Your task to perform on an android device: add a contact in the contacts app Image 0: 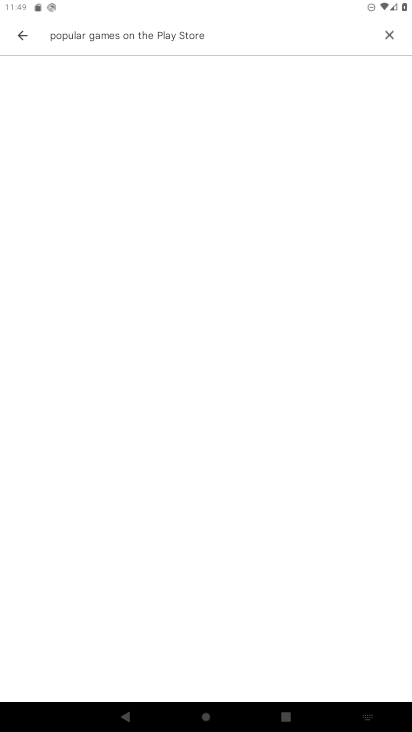
Step 0: press home button
Your task to perform on an android device: add a contact in the contacts app Image 1: 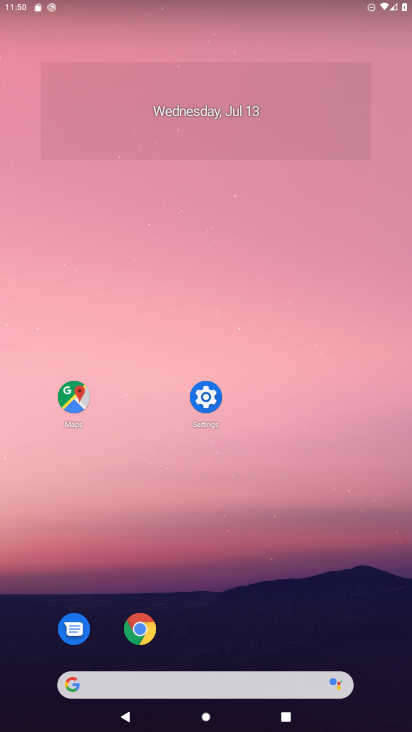
Step 1: drag from (389, 671) to (316, 187)
Your task to perform on an android device: add a contact in the contacts app Image 2: 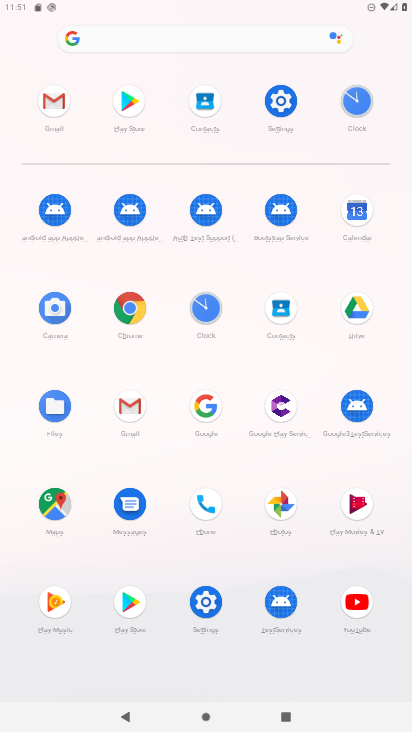
Step 2: click (285, 313)
Your task to perform on an android device: add a contact in the contacts app Image 3: 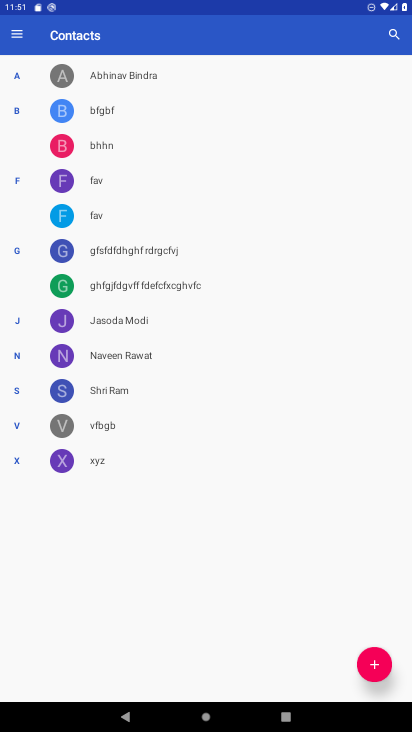
Step 3: click (367, 656)
Your task to perform on an android device: add a contact in the contacts app Image 4: 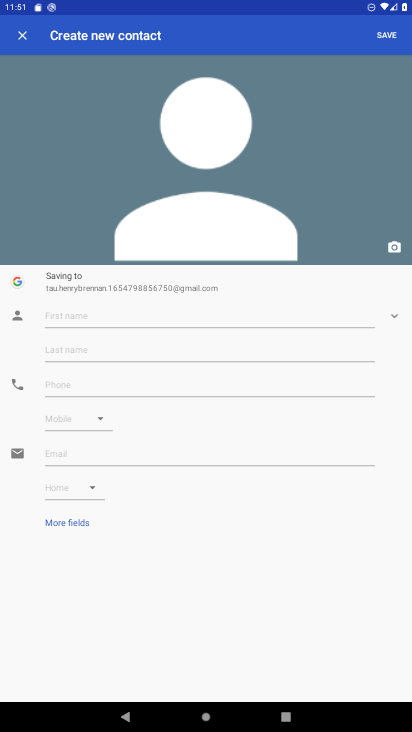
Step 4: click (145, 317)
Your task to perform on an android device: add a contact in the contacts app Image 5: 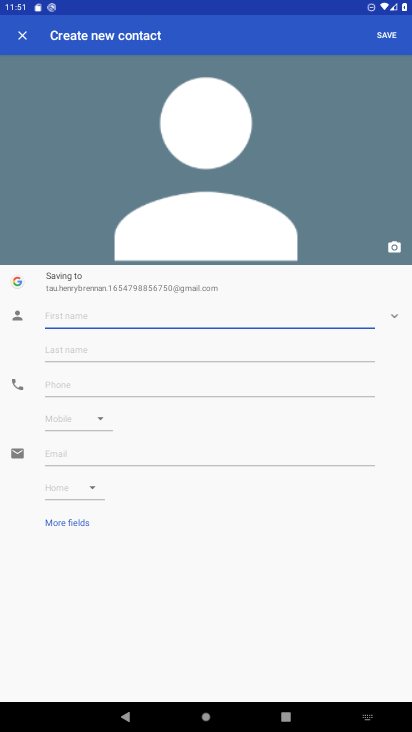
Step 5: type "dfdgfjfjfjgjjhv"
Your task to perform on an android device: add a contact in the contacts app Image 6: 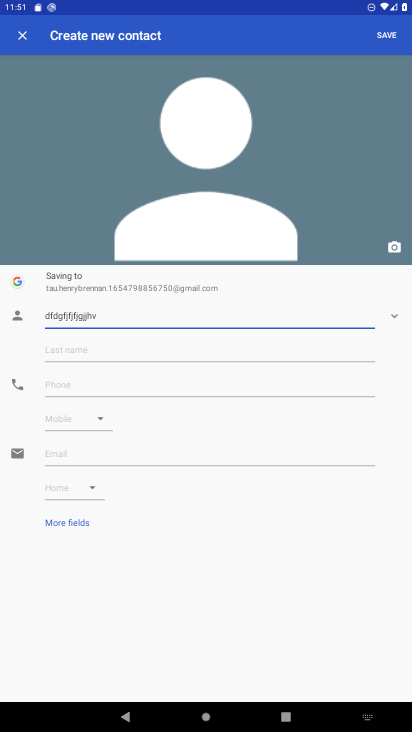
Step 6: click (121, 355)
Your task to perform on an android device: add a contact in the contacts app Image 7: 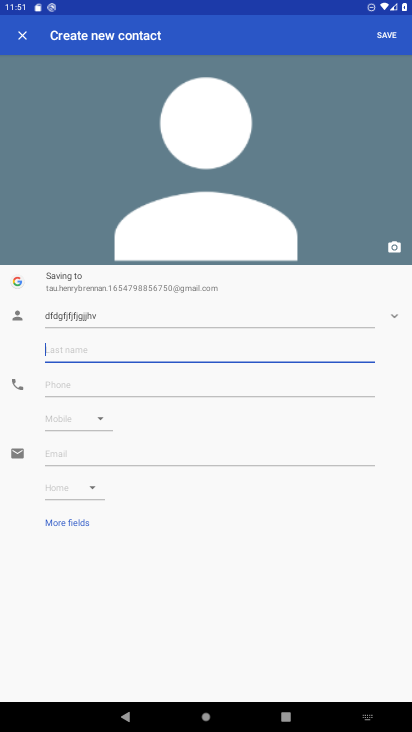
Step 7: type "tduufgffjhgy"
Your task to perform on an android device: add a contact in the contacts app Image 8: 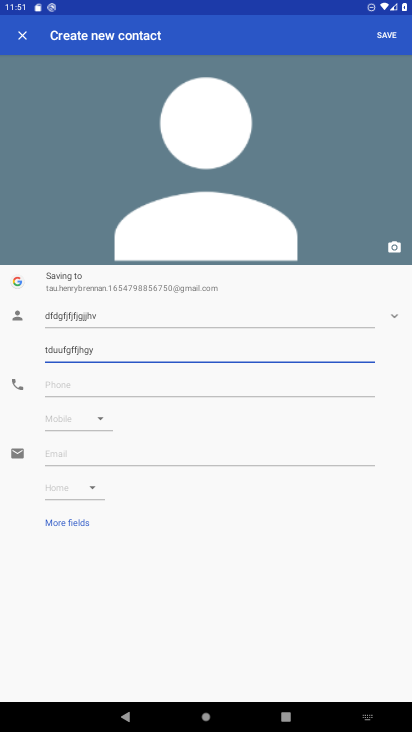
Step 8: click (78, 388)
Your task to perform on an android device: add a contact in the contacts app Image 9: 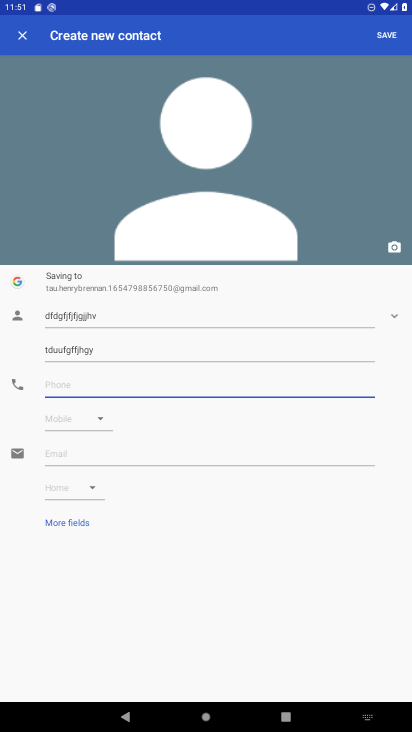
Step 9: type "54768745443444"
Your task to perform on an android device: add a contact in the contacts app Image 10: 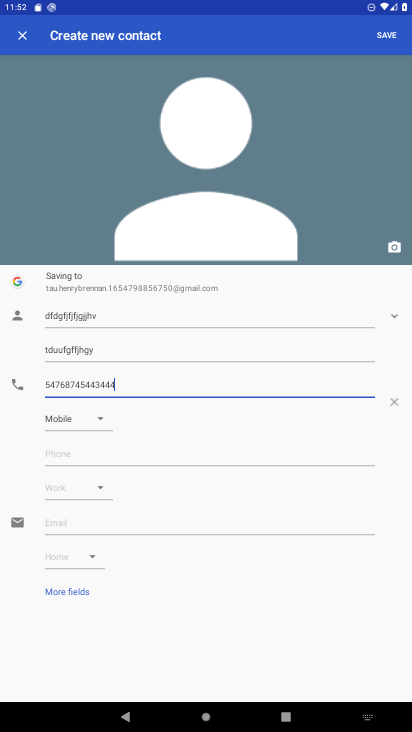
Step 10: click (386, 31)
Your task to perform on an android device: add a contact in the contacts app Image 11: 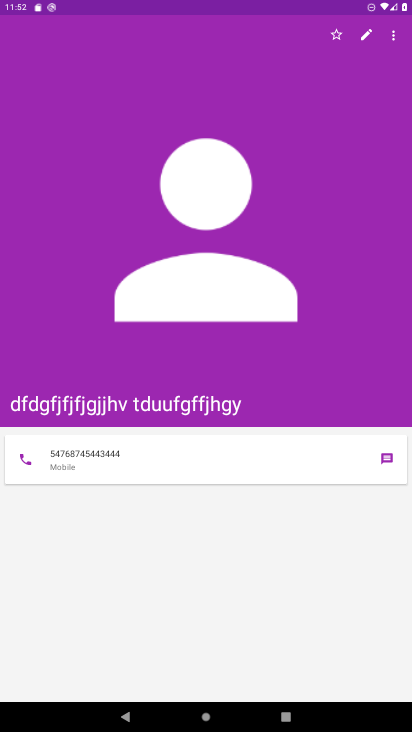
Step 11: task complete